Your task to perform on an android device: toggle sleep mode Image 0: 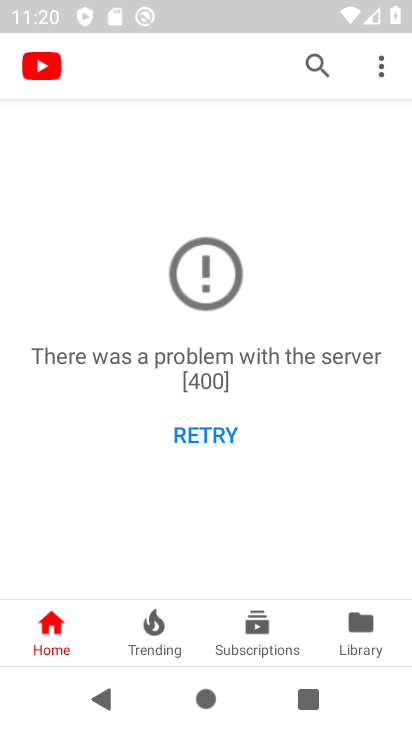
Step 0: press home button
Your task to perform on an android device: toggle sleep mode Image 1: 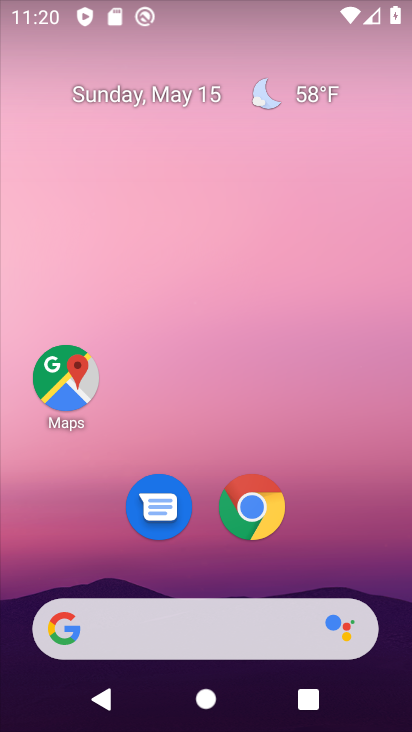
Step 1: drag from (275, 577) to (328, 137)
Your task to perform on an android device: toggle sleep mode Image 2: 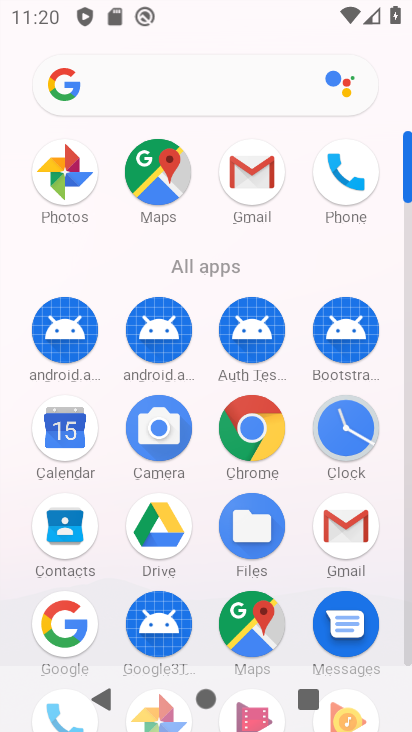
Step 2: drag from (202, 721) to (332, 243)
Your task to perform on an android device: toggle sleep mode Image 3: 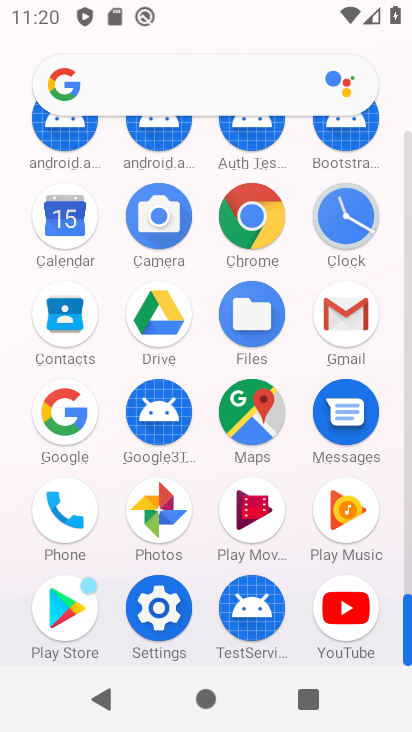
Step 3: click (158, 616)
Your task to perform on an android device: toggle sleep mode Image 4: 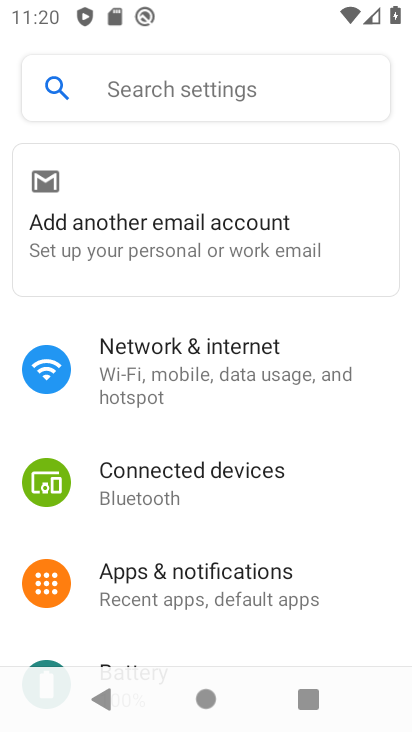
Step 4: drag from (146, 648) to (233, 352)
Your task to perform on an android device: toggle sleep mode Image 5: 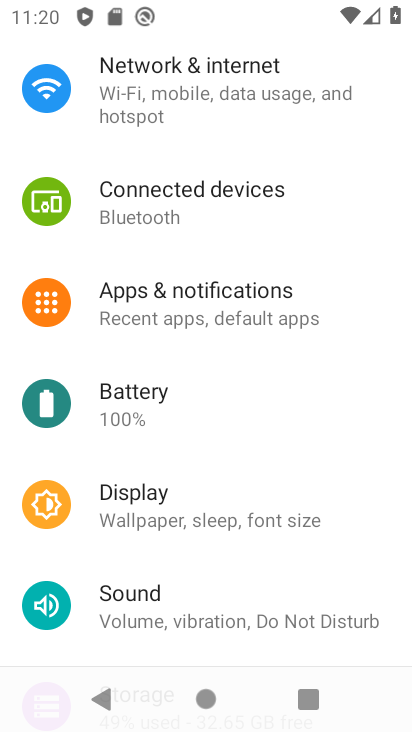
Step 5: click (183, 512)
Your task to perform on an android device: toggle sleep mode Image 6: 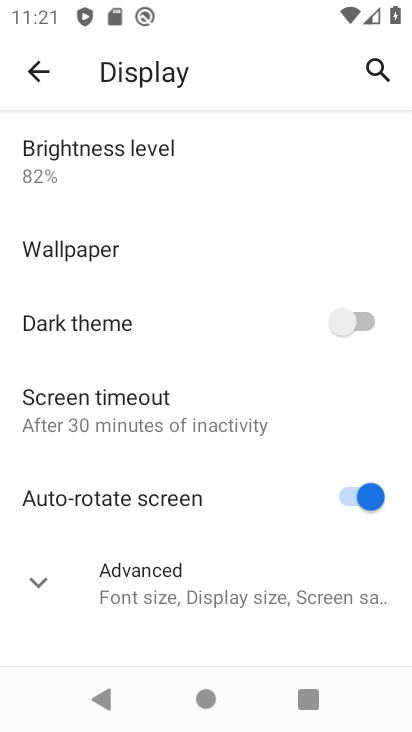
Step 6: click (284, 595)
Your task to perform on an android device: toggle sleep mode Image 7: 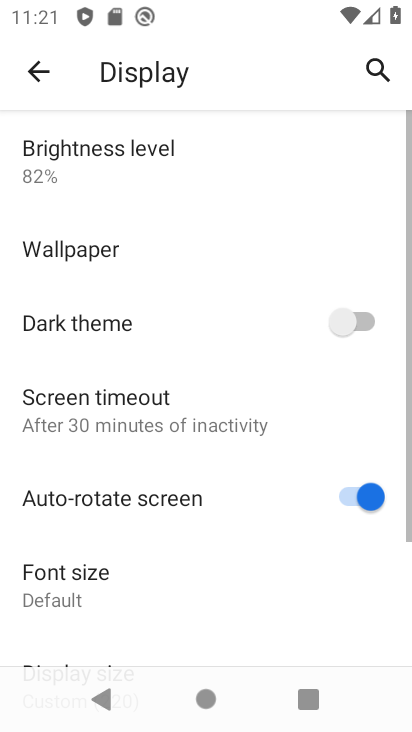
Step 7: task complete